Your task to perform on an android device: turn off airplane mode Image 0: 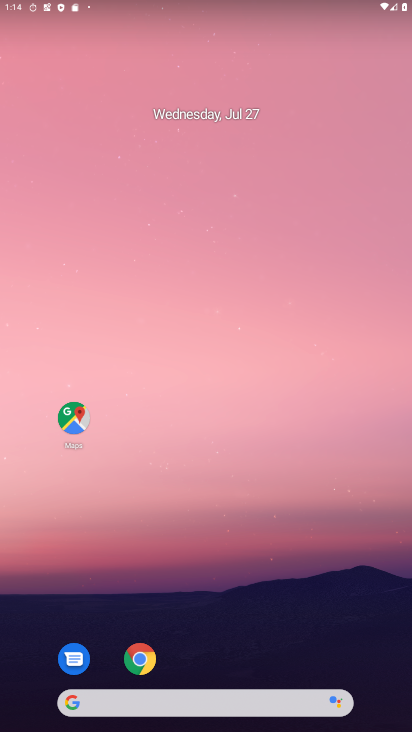
Step 0: press home button
Your task to perform on an android device: turn off airplane mode Image 1: 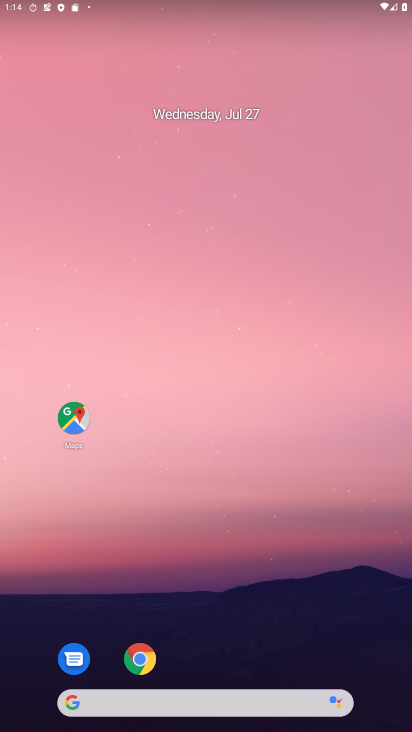
Step 1: task complete